Your task to perform on an android device: check out phone information Image 0: 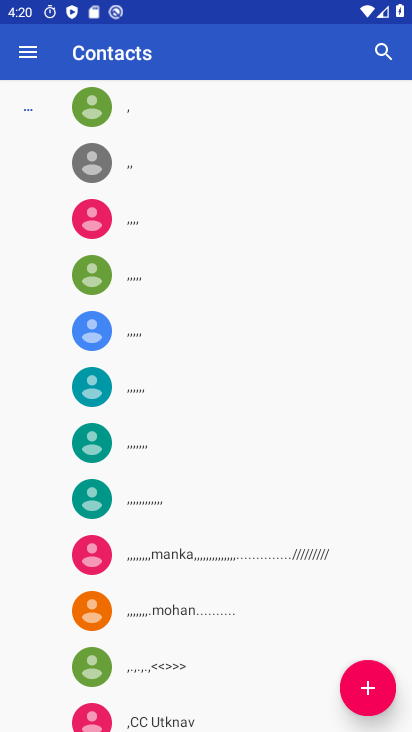
Step 0: press home button
Your task to perform on an android device: check out phone information Image 1: 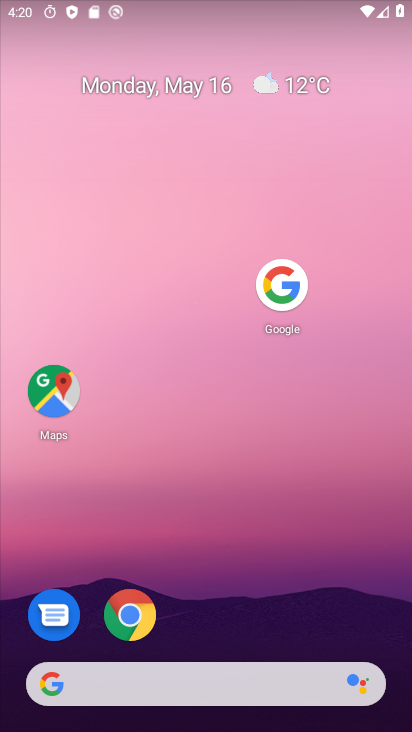
Step 1: drag from (216, 648) to (154, 50)
Your task to perform on an android device: check out phone information Image 2: 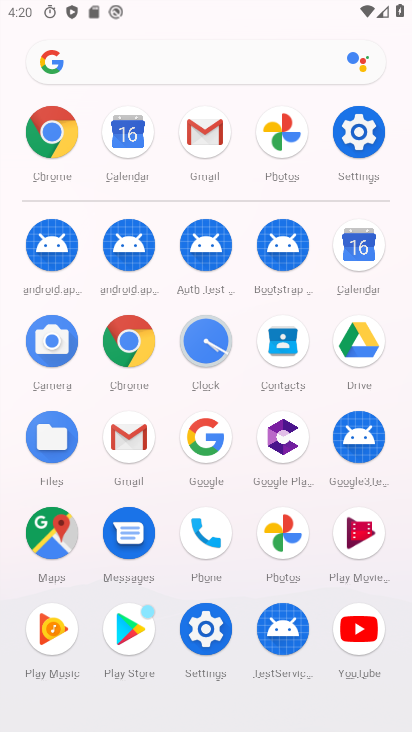
Step 2: click (354, 136)
Your task to perform on an android device: check out phone information Image 3: 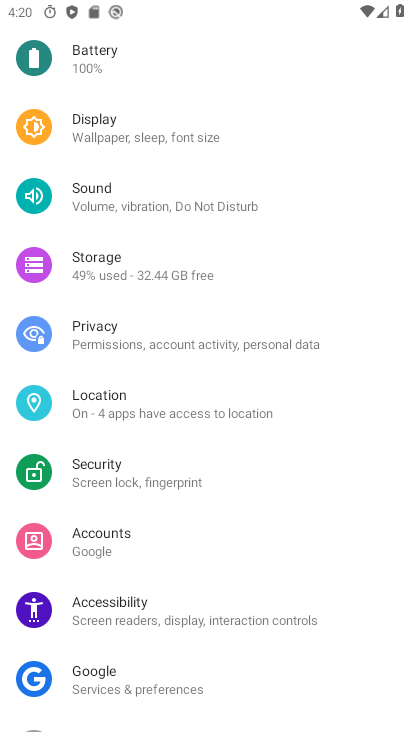
Step 3: task complete